Your task to perform on an android device: Go to accessibility settings Image 0: 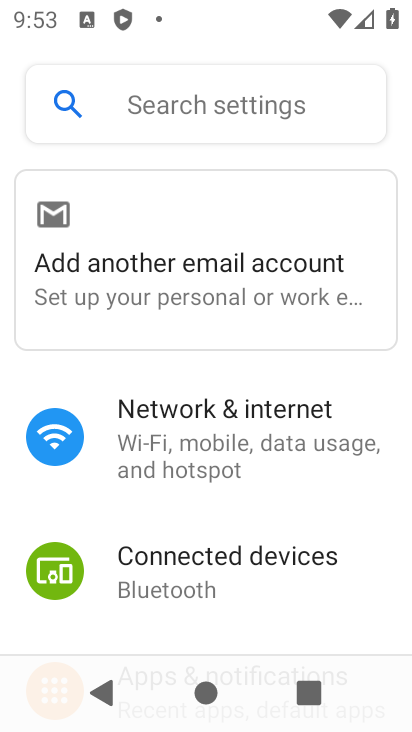
Step 0: drag from (252, 514) to (247, 190)
Your task to perform on an android device: Go to accessibility settings Image 1: 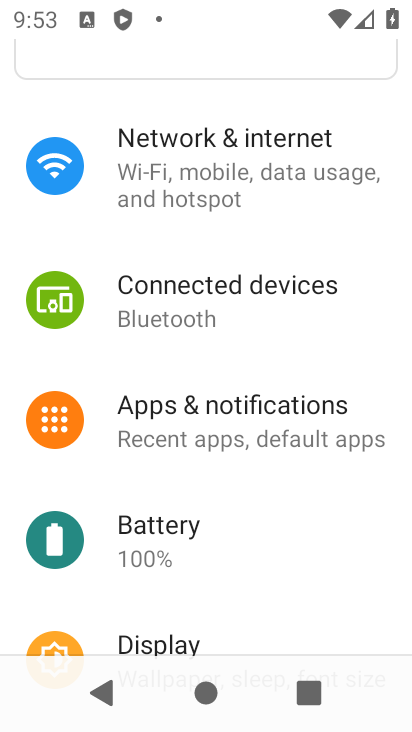
Step 1: drag from (260, 574) to (297, 178)
Your task to perform on an android device: Go to accessibility settings Image 2: 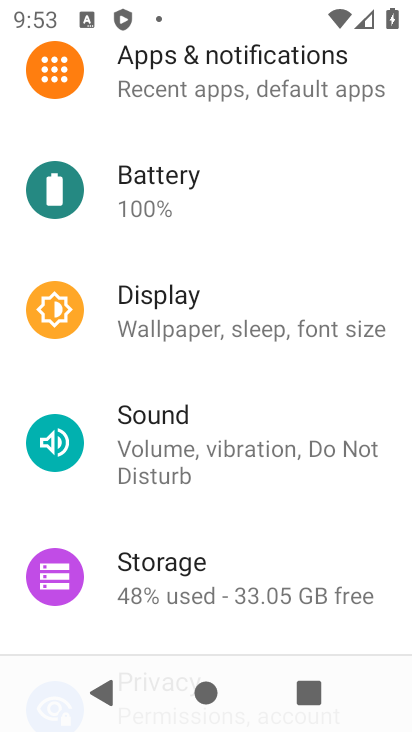
Step 2: drag from (256, 488) to (273, 125)
Your task to perform on an android device: Go to accessibility settings Image 3: 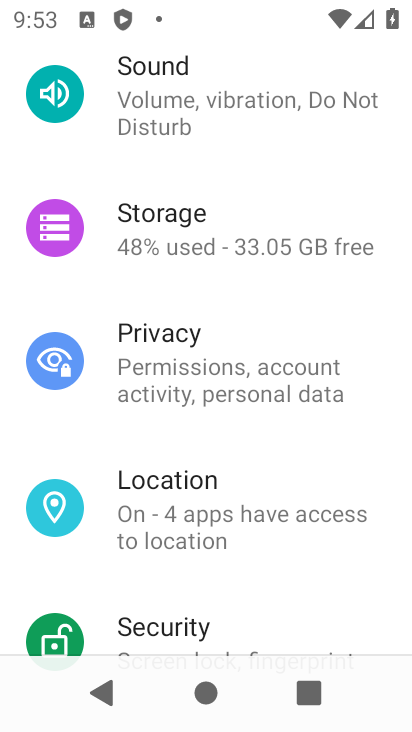
Step 3: drag from (258, 561) to (261, 138)
Your task to perform on an android device: Go to accessibility settings Image 4: 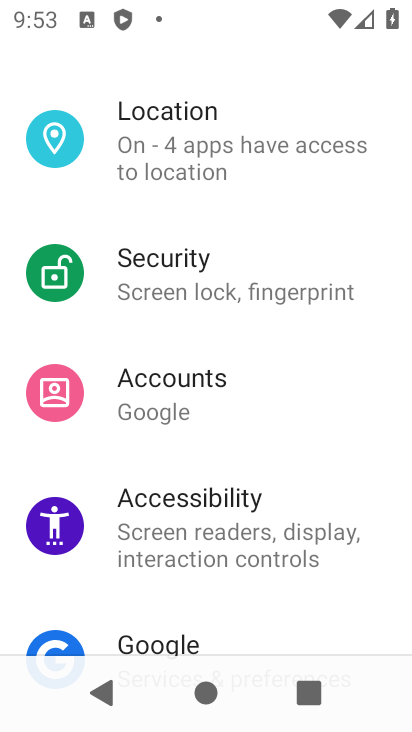
Step 4: click (216, 518)
Your task to perform on an android device: Go to accessibility settings Image 5: 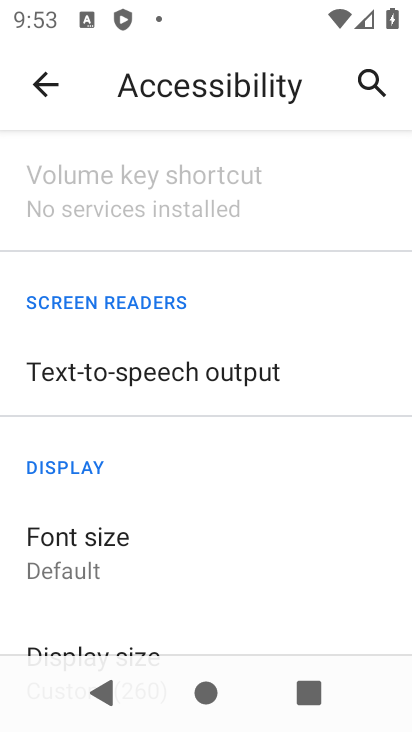
Step 5: task complete